Your task to perform on an android device: Empty the shopping cart on costco. Image 0: 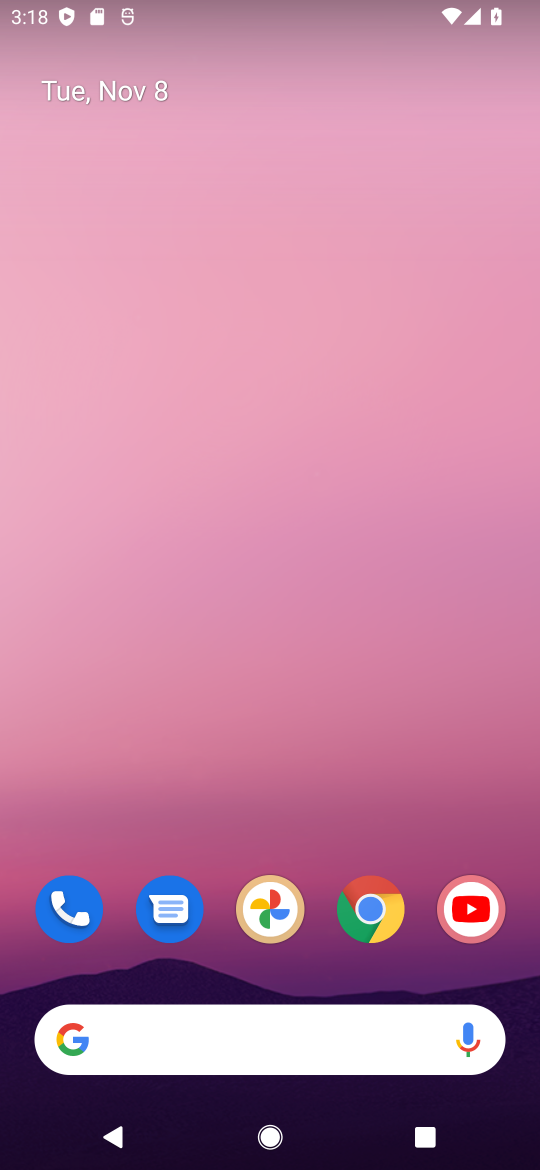
Step 0: click (360, 908)
Your task to perform on an android device: Empty the shopping cart on costco. Image 1: 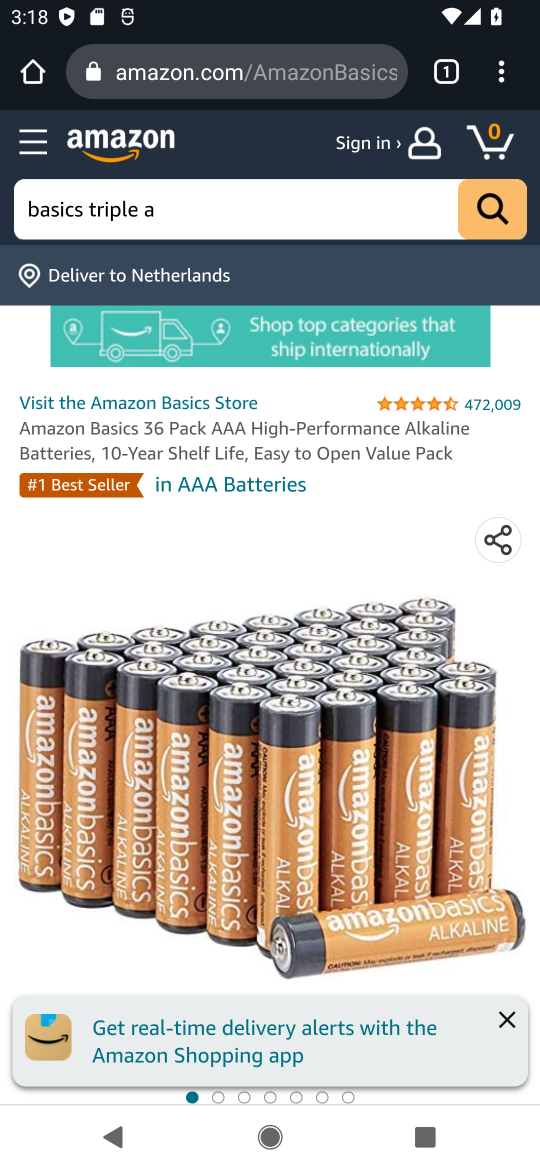
Step 1: click (281, 71)
Your task to perform on an android device: Empty the shopping cart on costco. Image 2: 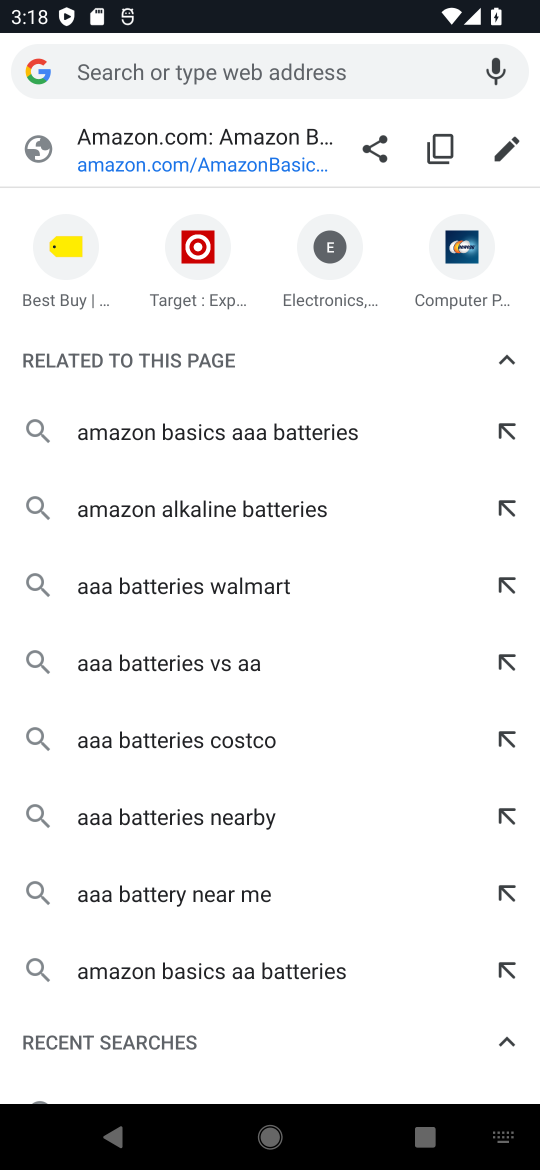
Step 2: type "costco"
Your task to perform on an android device: Empty the shopping cart on costco. Image 3: 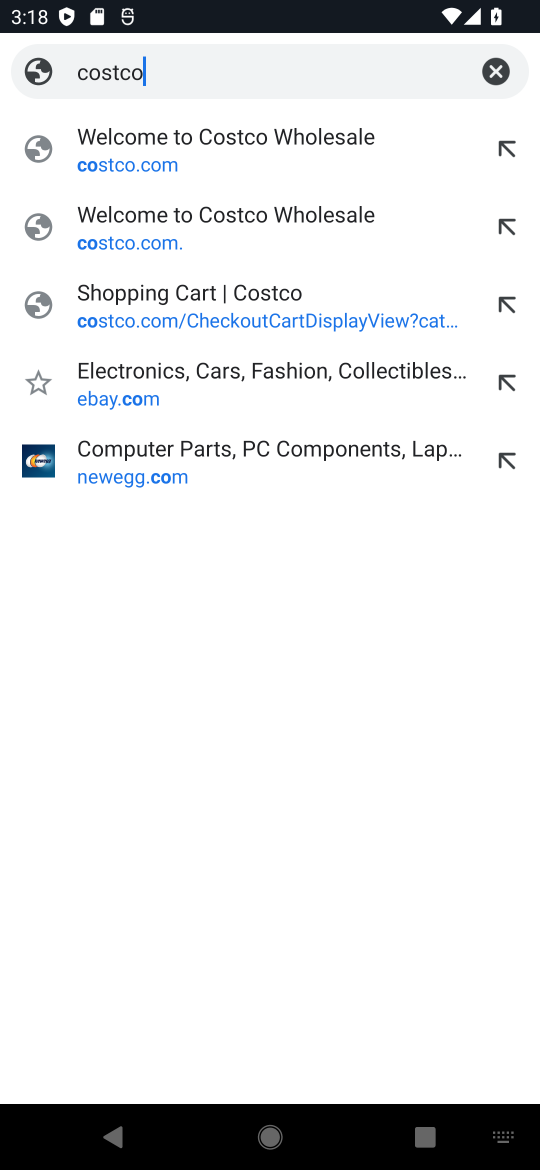
Step 3: press enter
Your task to perform on an android device: Empty the shopping cart on costco. Image 4: 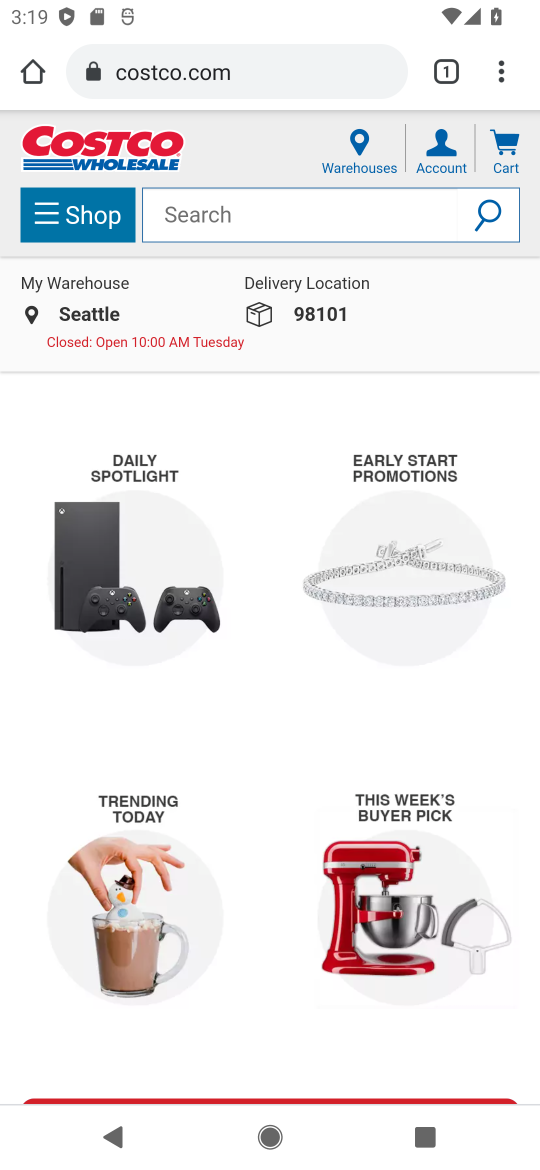
Step 4: click (501, 154)
Your task to perform on an android device: Empty the shopping cart on costco. Image 5: 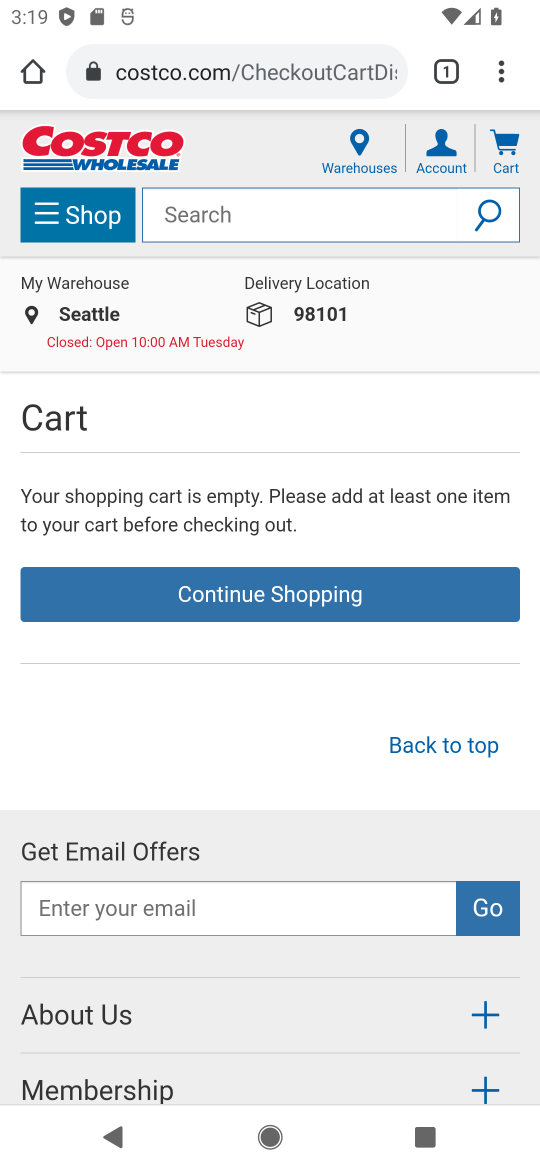
Step 5: task complete